Your task to perform on an android device: show emergency info Image 0: 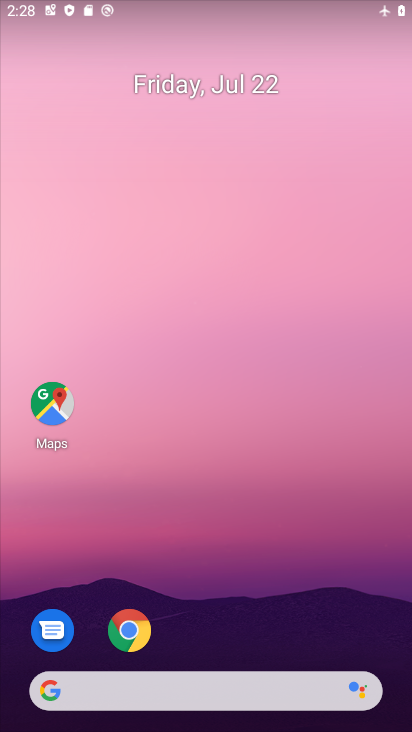
Step 0: drag from (229, 669) to (164, 123)
Your task to perform on an android device: show emergency info Image 1: 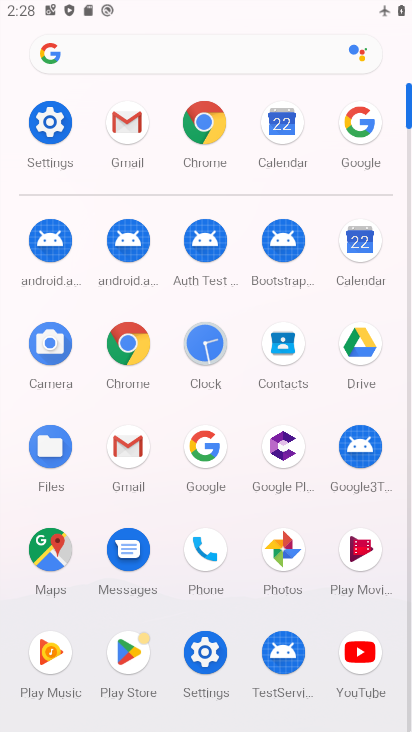
Step 1: click (49, 119)
Your task to perform on an android device: show emergency info Image 2: 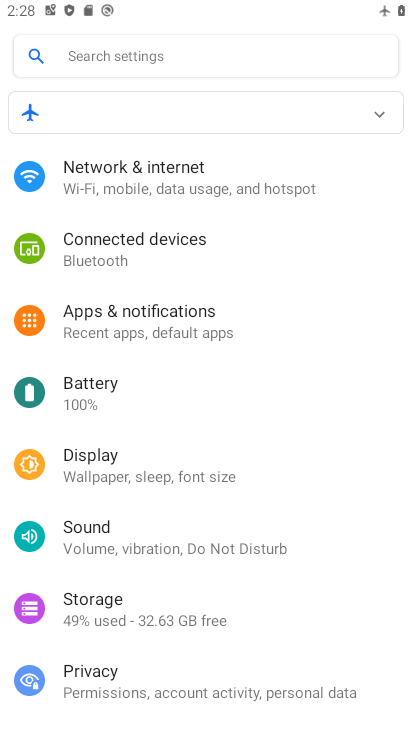
Step 2: drag from (243, 611) to (197, 135)
Your task to perform on an android device: show emergency info Image 3: 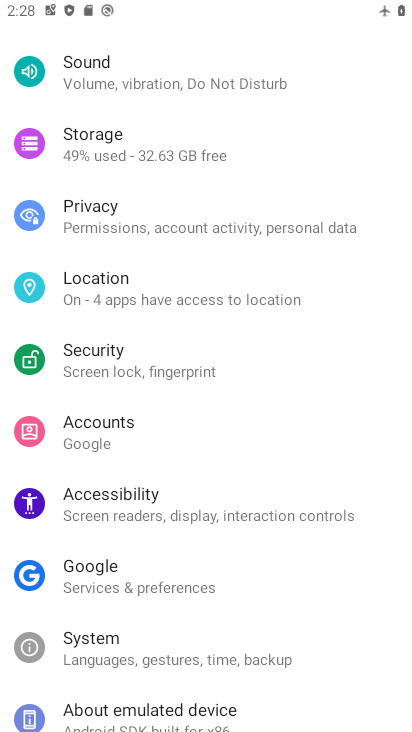
Step 3: drag from (192, 677) to (173, 226)
Your task to perform on an android device: show emergency info Image 4: 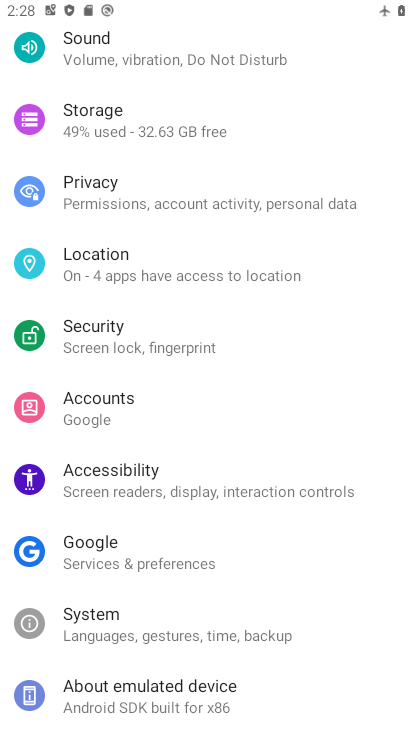
Step 4: click (158, 684)
Your task to perform on an android device: show emergency info Image 5: 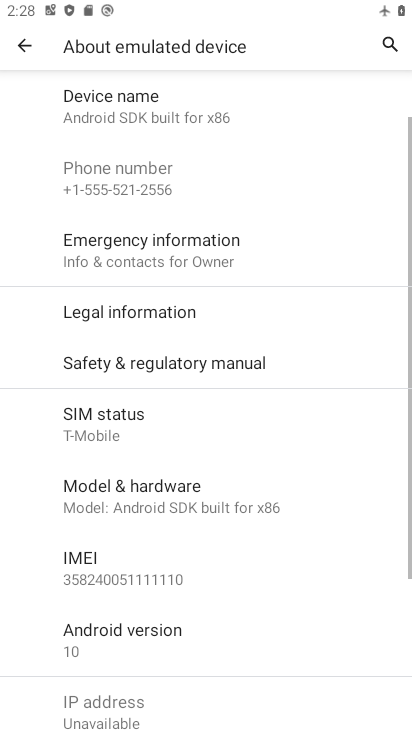
Step 5: click (171, 258)
Your task to perform on an android device: show emergency info Image 6: 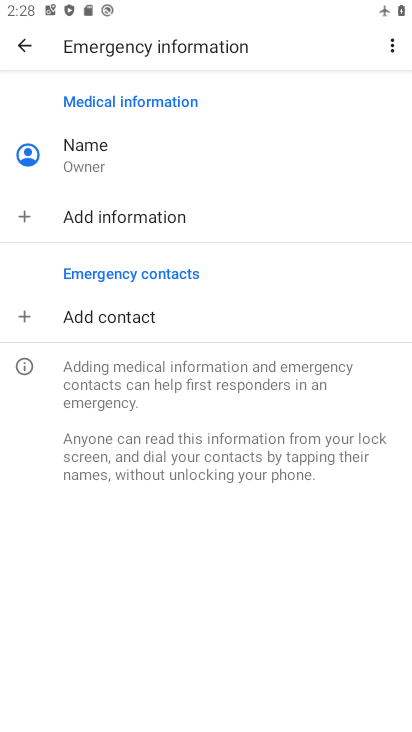
Step 6: task complete